Your task to perform on an android device: change the clock display to digital Image 0: 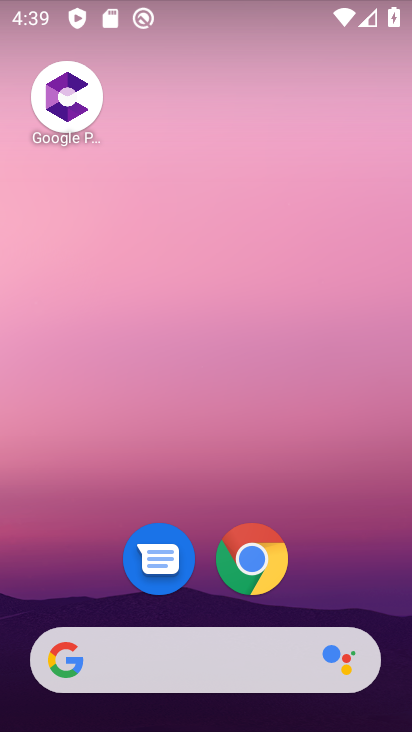
Step 0: drag from (338, 588) to (310, 242)
Your task to perform on an android device: change the clock display to digital Image 1: 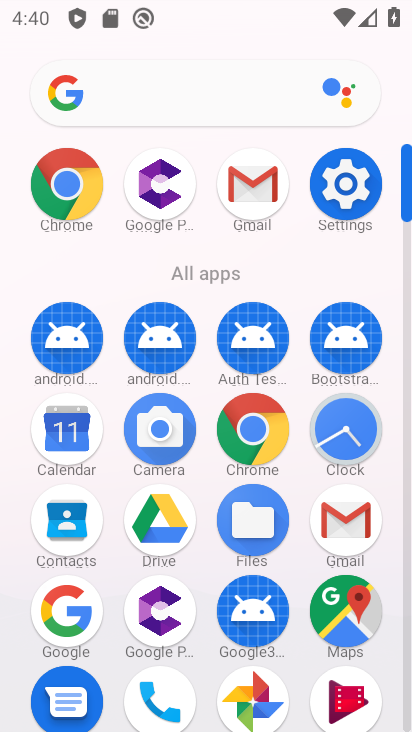
Step 1: click (343, 464)
Your task to perform on an android device: change the clock display to digital Image 2: 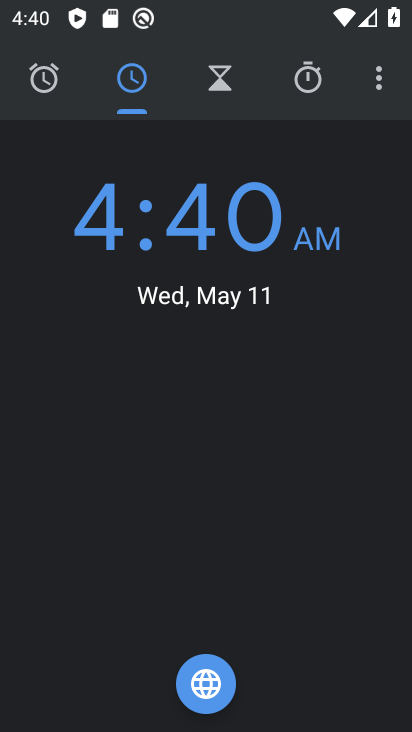
Step 2: click (377, 82)
Your task to perform on an android device: change the clock display to digital Image 3: 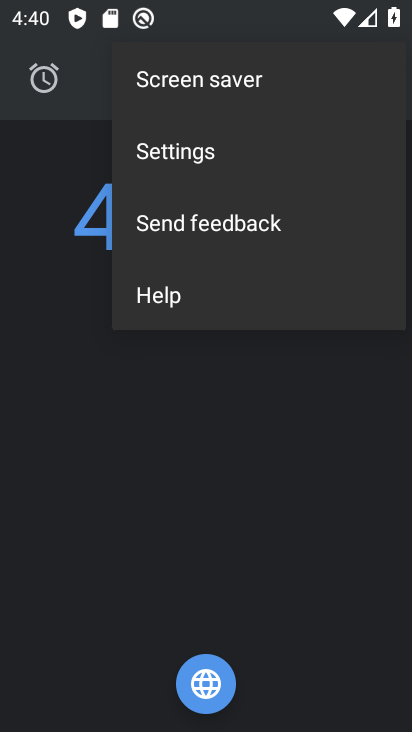
Step 3: click (202, 140)
Your task to perform on an android device: change the clock display to digital Image 4: 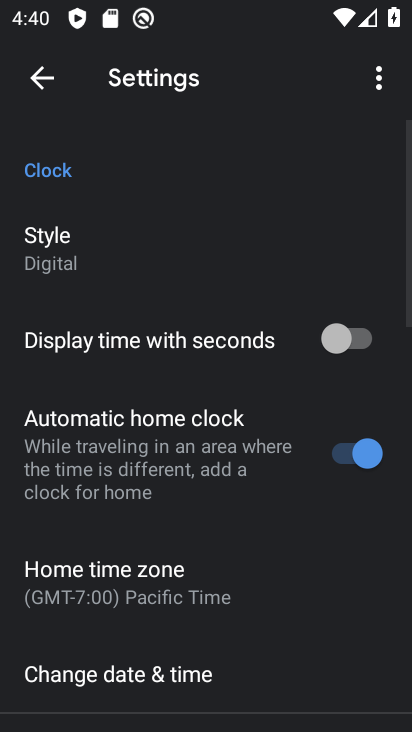
Step 4: task complete